Your task to perform on an android device: What's on my calendar today? Image 0: 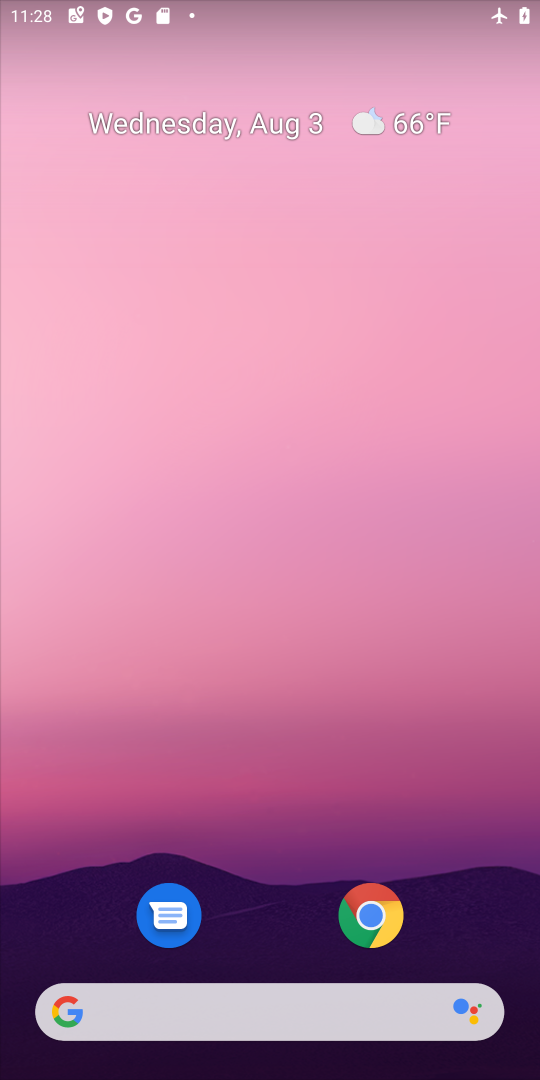
Step 0: drag from (230, 490) to (222, 220)
Your task to perform on an android device: What's on my calendar today? Image 1: 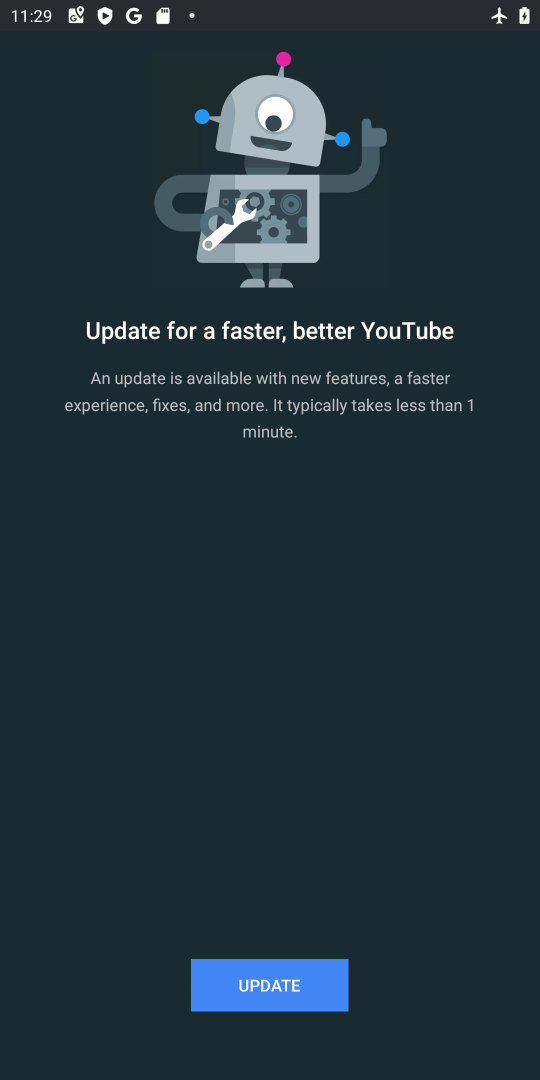
Step 1: press home button
Your task to perform on an android device: What's on my calendar today? Image 2: 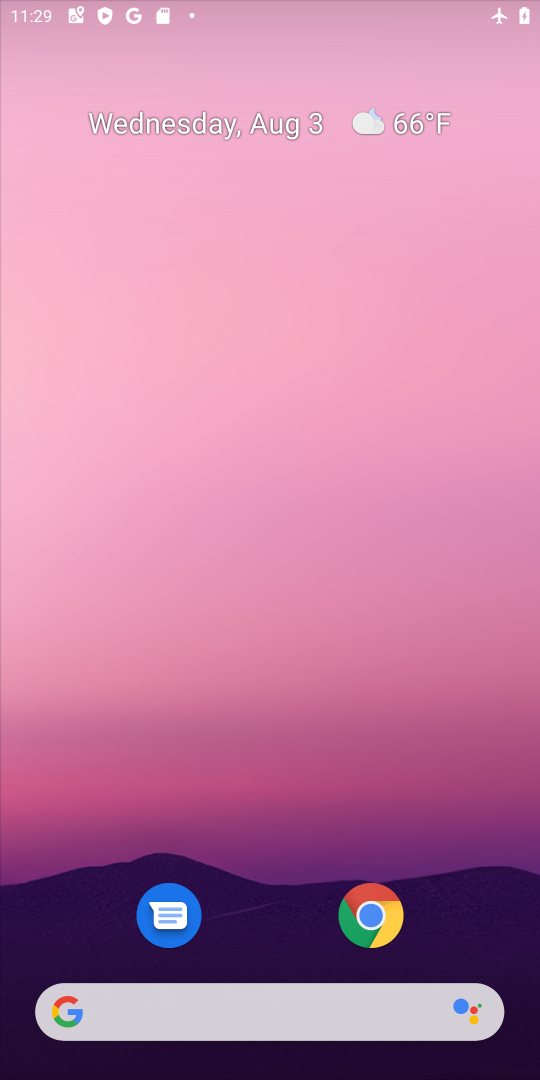
Step 2: drag from (185, 538) to (91, 15)
Your task to perform on an android device: What's on my calendar today? Image 3: 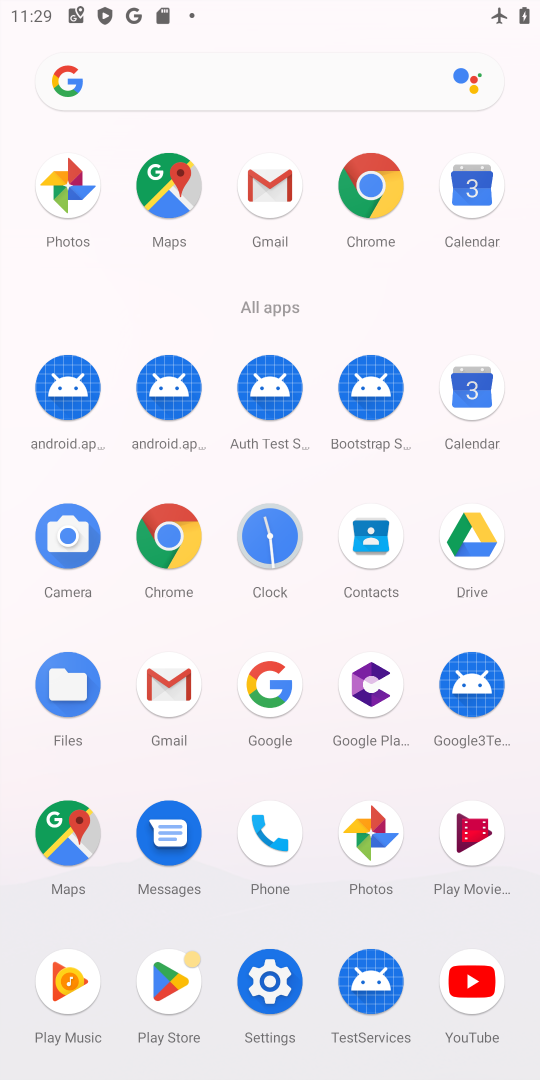
Step 3: click (491, 207)
Your task to perform on an android device: What's on my calendar today? Image 4: 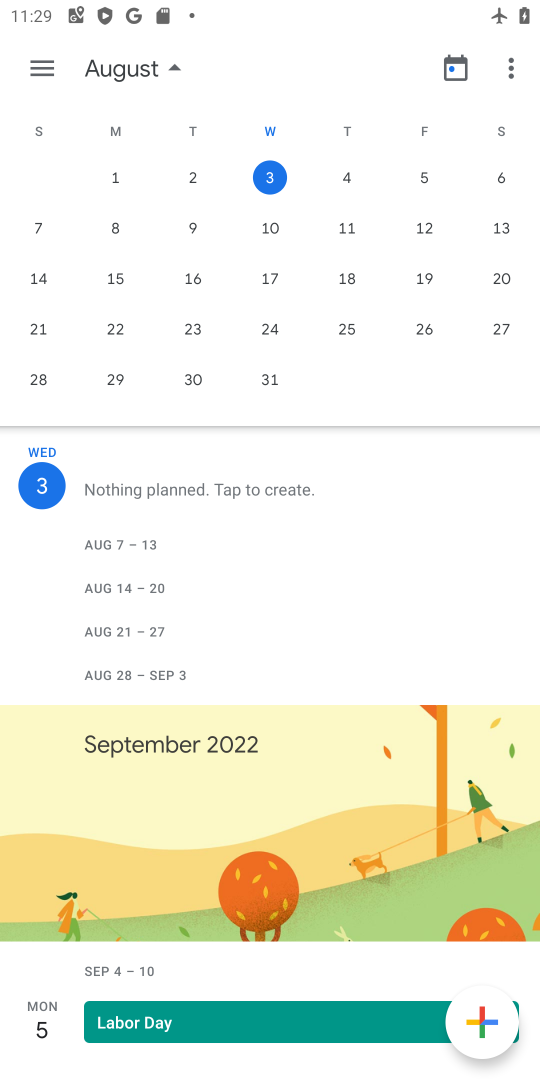
Step 4: click (351, 160)
Your task to perform on an android device: What's on my calendar today? Image 5: 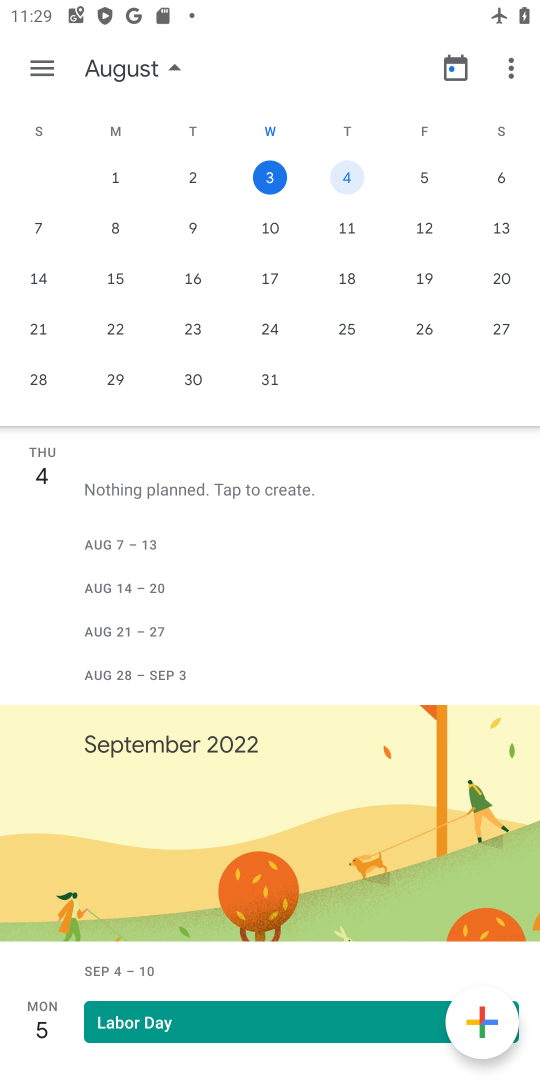
Step 5: task complete